Your task to perform on an android device: refresh tabs in the chrome app Image 0: 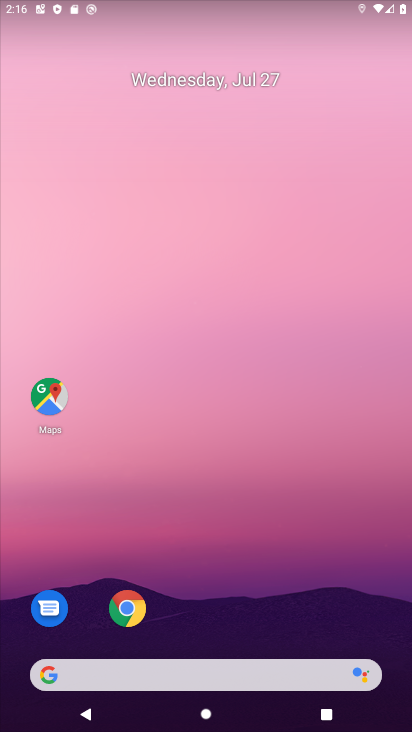
Step 0: click (128, 611)
Your task to perform on an android device: refresh tabs in the chrome app Image 1: 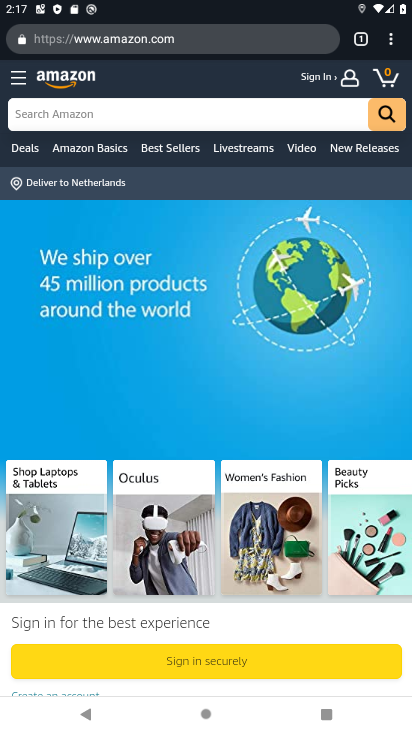
Step 1: click (360, 43)
Your task to perform on an android device: refresh tabs in the chrome app Image 2: 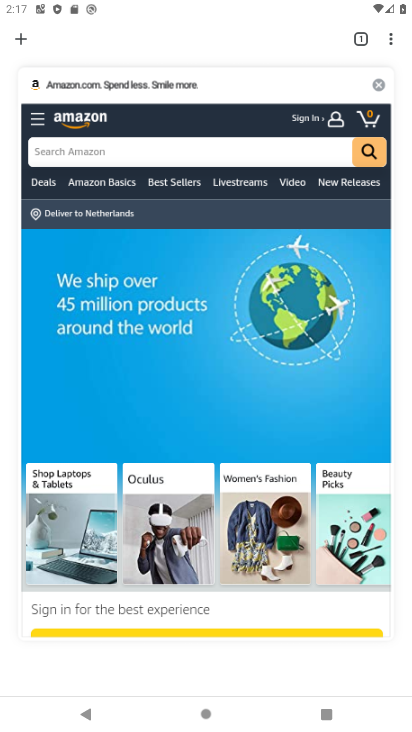
Step 2: click (16, 38)
Your task to perform on an android device: refresh tabs in the chrome app Image 3: 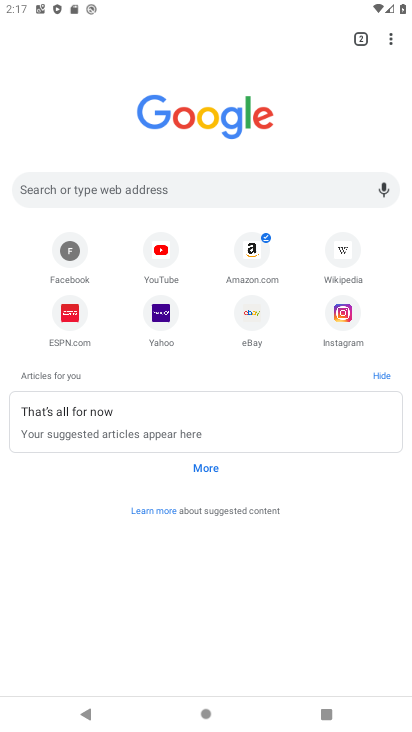
Step 3: click (390, 49)
Your task to perform on an android device: refresh tabs in the chrome app Image 4: 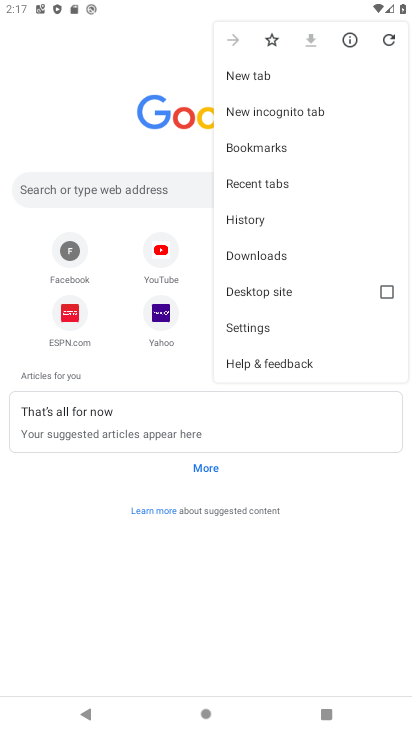
Step 4: click (392, 37)
Your task to perform on an android device: refresh tabs in the chrome app Image 5: 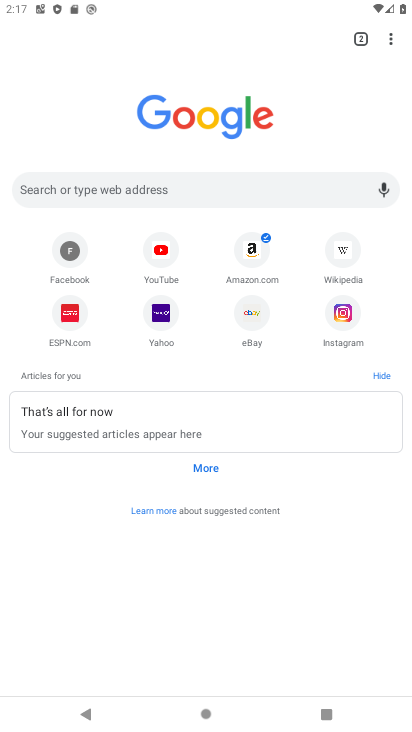
Step 5: task complete